Your task to perform on an android device: When is my next meeting? Image 0: 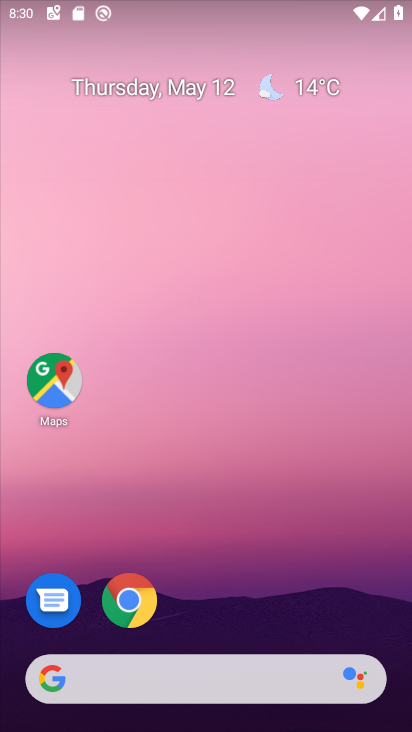
Step 0: drag from (255, 437) to (399, 5)
Your task to perform on an android device: When is my next meeting? Image 1: 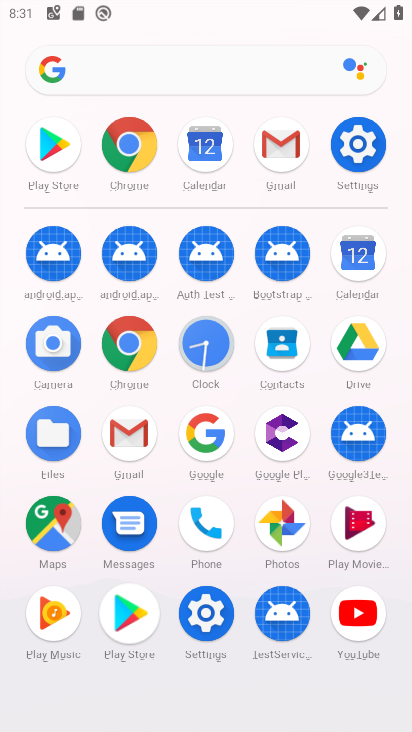
Step 1: click (350, 246)
Your task to perform on an android device: When is my next meeting? Image 2: 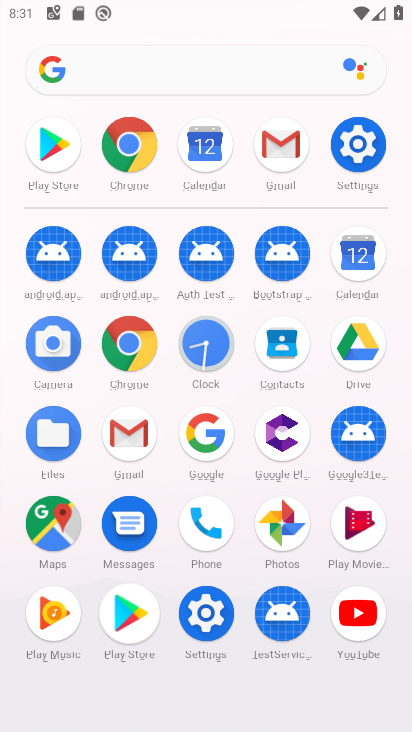
Step 2: click (355, 249)
Your task to perform on an android device: When is my next meeting? Image 3: 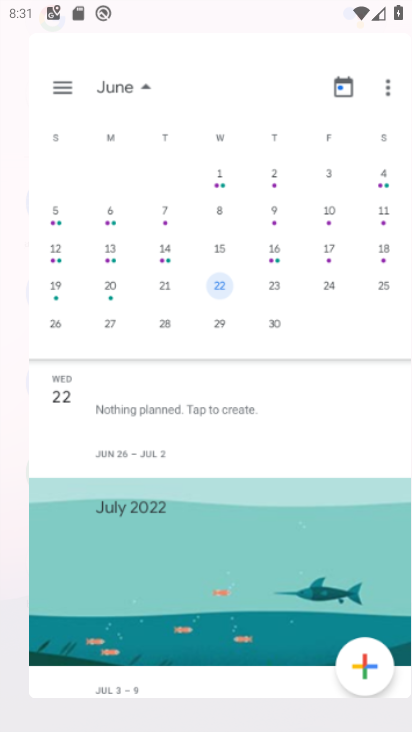
Step 3: click (355, 249)
Your task to perform on an android device: When is my next meeting? Image 4: 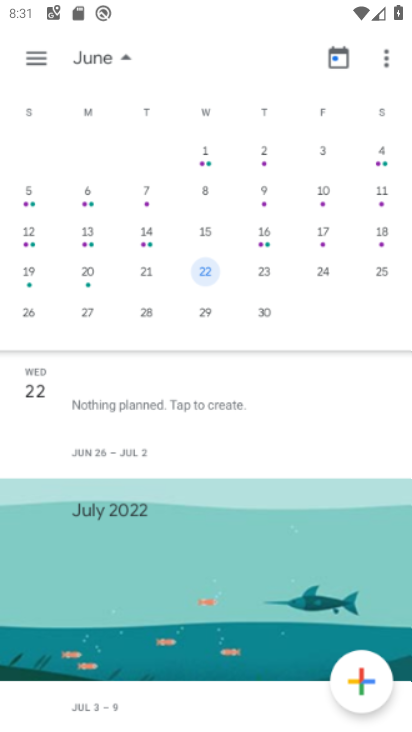
Step 4: click (355, 249)
Your task to perform on an android device: When is my next meeting? Image 5: 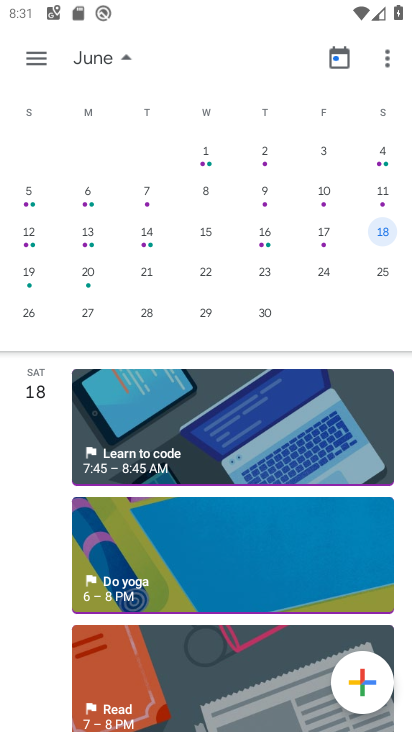
Step 5: click (356, 250)
Your task to perform on an android device: When is my next meeting? Image 6: 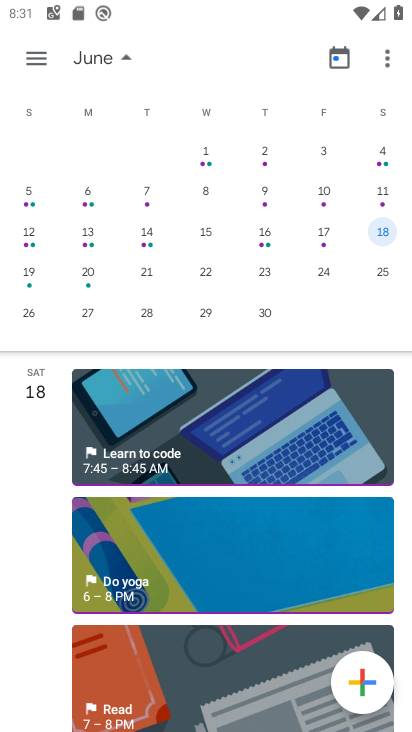
Step 6: drag from (160, 473) to (156, 325)
Your task to perform on an android device: When is my next meeting? Image 7: 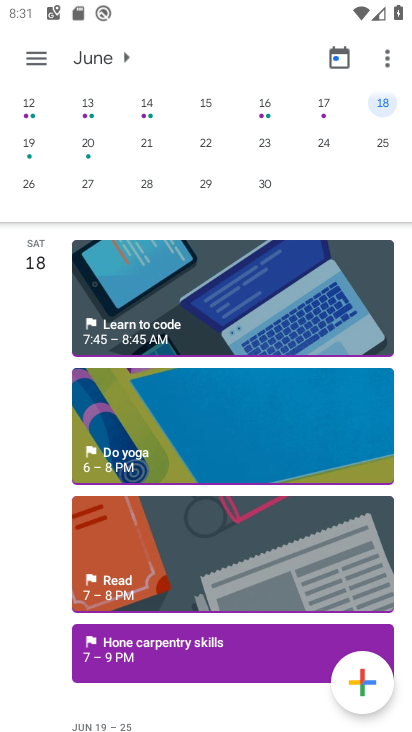
Step 7: drag from (178, 513) to (191, 178)
Your task to perform on an android device: When is my next meeting? Image 8: 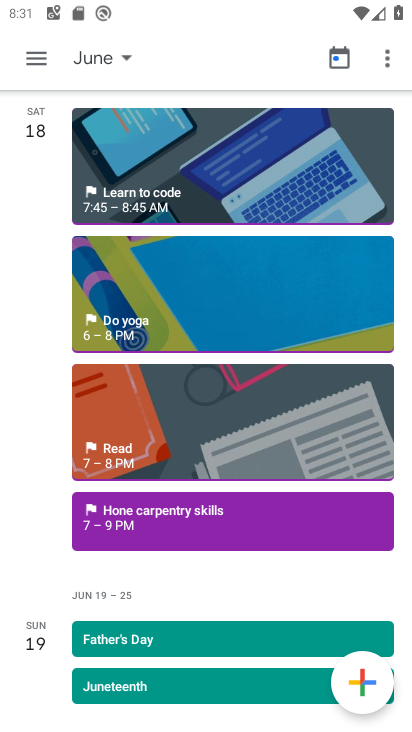
Step 8: drag from (225, 477) to (232, 211)
Your task to perform on an android device: When is my next meeting? Image 9: 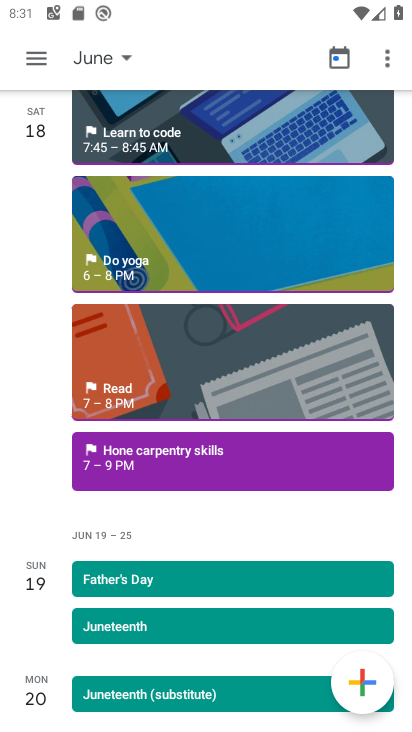
Step 9: drag from (256, 395) to (254, 243)
Your task to perform on an android device: When is my next meeting? Image 10: 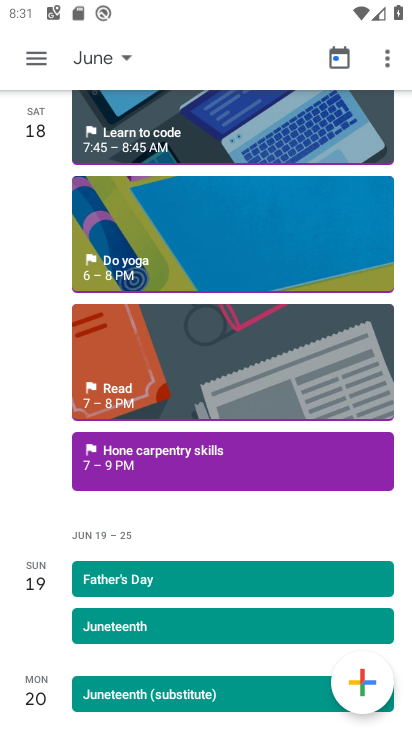
Step 10: drag from (206, 139) to (150, 132)
Your task to perform on an android device: When is my next meeting? Image 11: 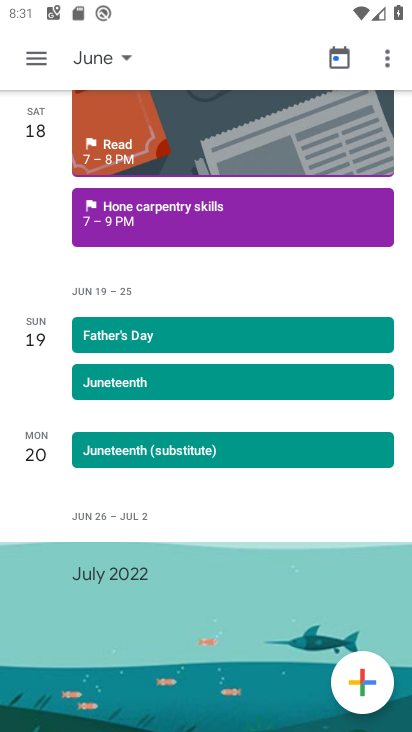
Step 11: click (200, 24)
Your task to perform on an android device: When is my next meeting? Image 12: 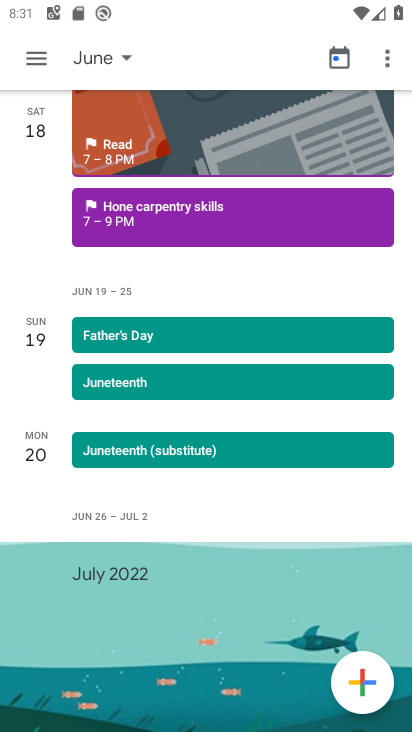
Step 12: task complete